Your task to perform on an android device: open sync settings in chrome Image 0: 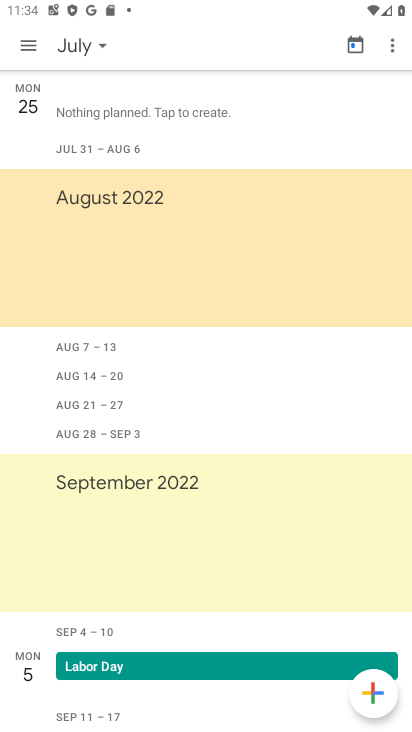
Step 0: press home button
Your task to perform on an android device: open sync settings in chrome Image 1: 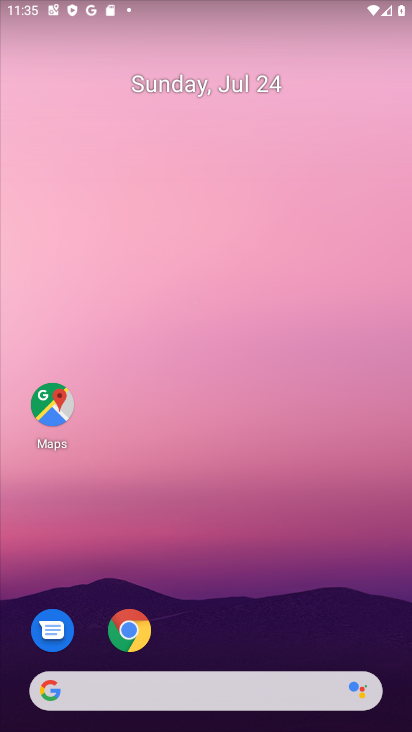
Step 1: click (119, 641)
Your task to perform on an android device: open sync settings in chrome Image 2: 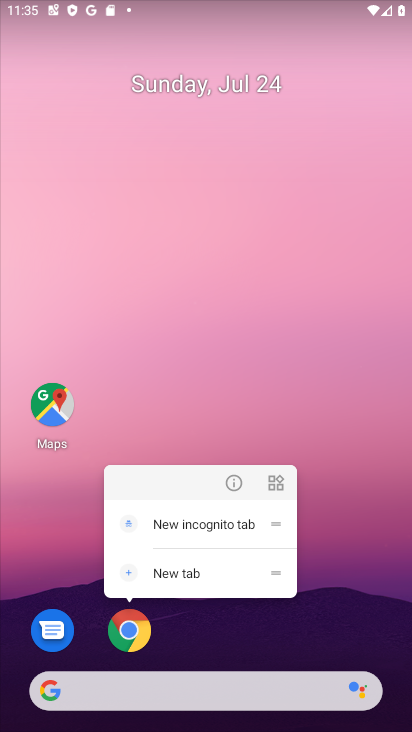
Step 2: click (111, 645)
Your task to perform on an android device: open sync settings in chrome Image 3: 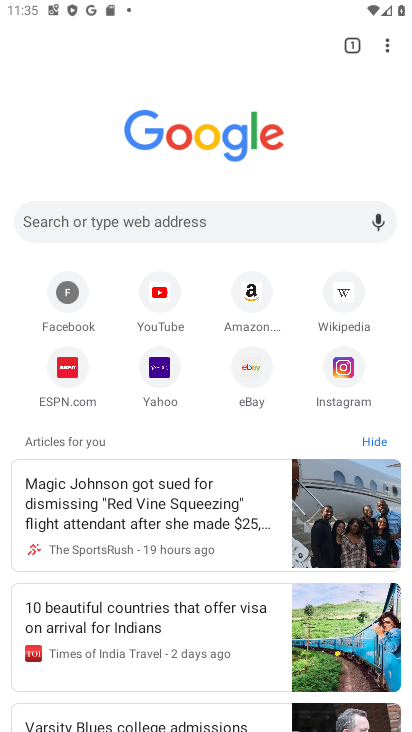
Step 3: drag from (378, 66) to (207, 432)
Your task to perform on an android device: open sync settings in chrome Image 4: 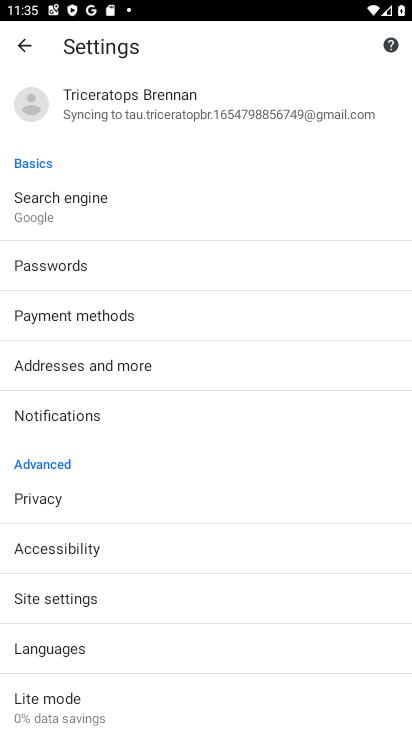
Step 4: click (80, 100)
Your task to perform on an android device: open sync settings in chrome Image 5: 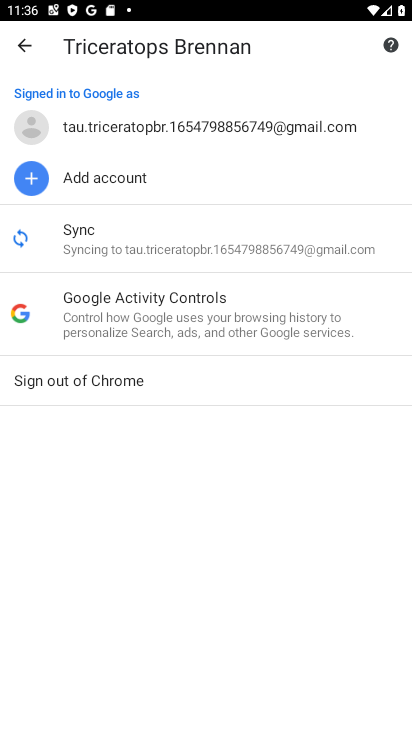
Step 5: click (74, 219)
Your task to perform on an android device: open sync settings in chrome Image 6: 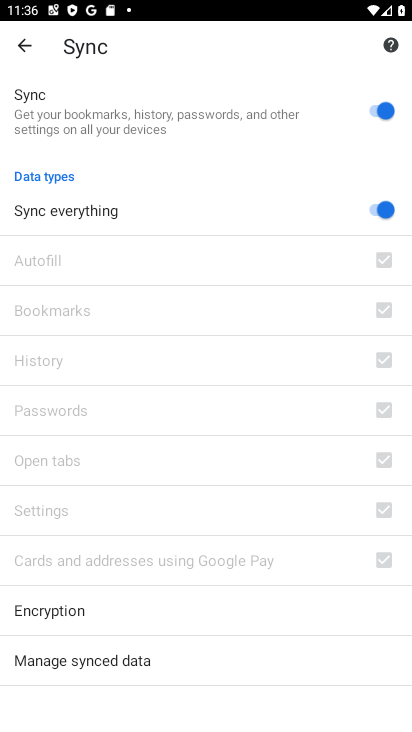
Step 6: task complete